Your task to perform on an android device: change your default location settings in chrome Image 0: 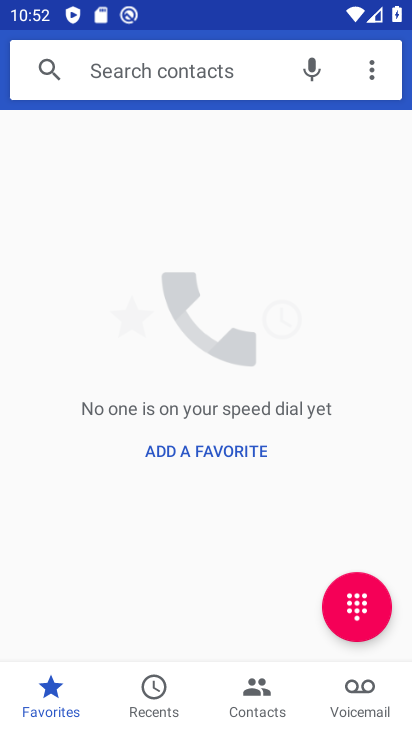
Step 0: press home button
Your task to perform on an android device: change your default location settings in chrome Image 1: 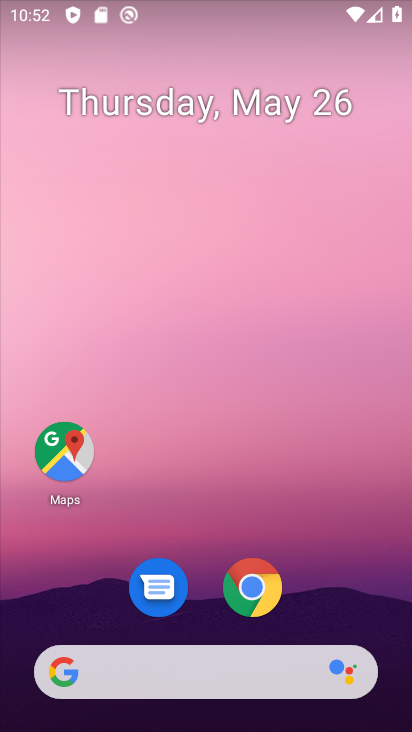
Step 1: drag from (302, 697) to (337, 199)
Your task to perform on an android device: change your default location settings in chrome Image 2: 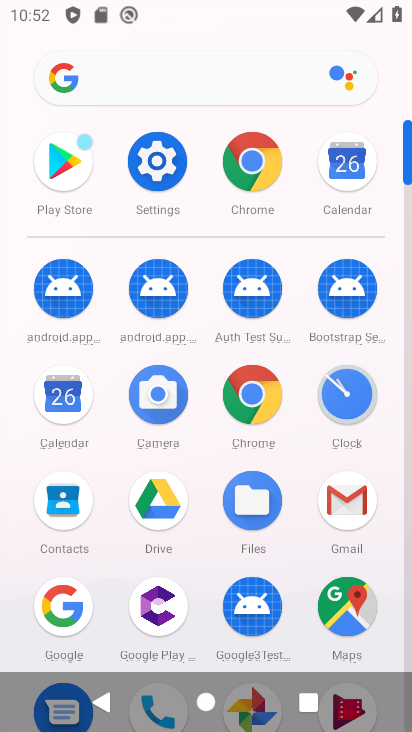
Step 2: click (251, 181)
Your task to perform on an android device: change your default location settings in chrome Image 3: 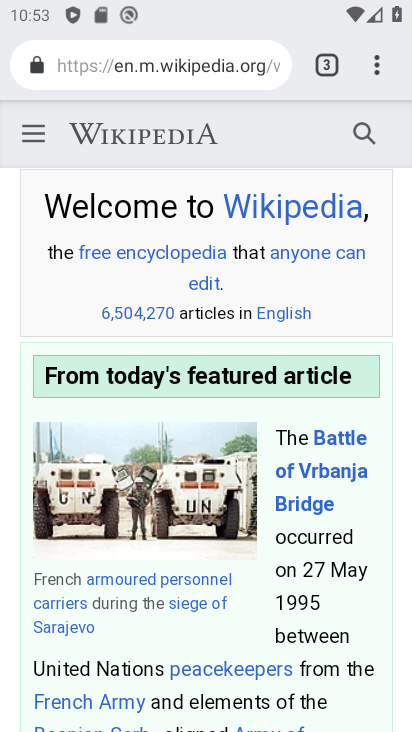
Step 3: click (365, 76)
Your task to perform on an android device: change your default location settings in chrome Image 4: 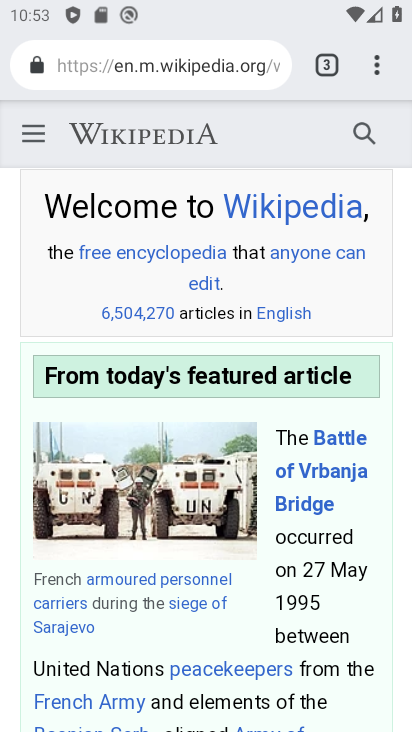
Step 4: click (379, 70)
Your task to perform on an android device: change your default location settings in chrome Image 5: 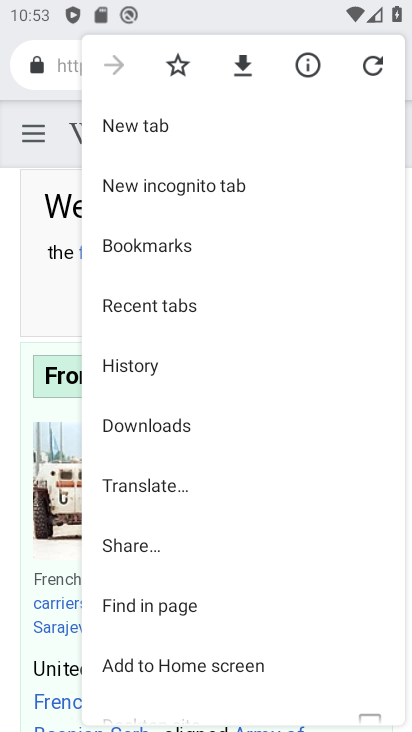
Step 5: drag from (207, 626) to (248, 407)
Your task to perform on an android device: change your default location settings in chrome Image 6: 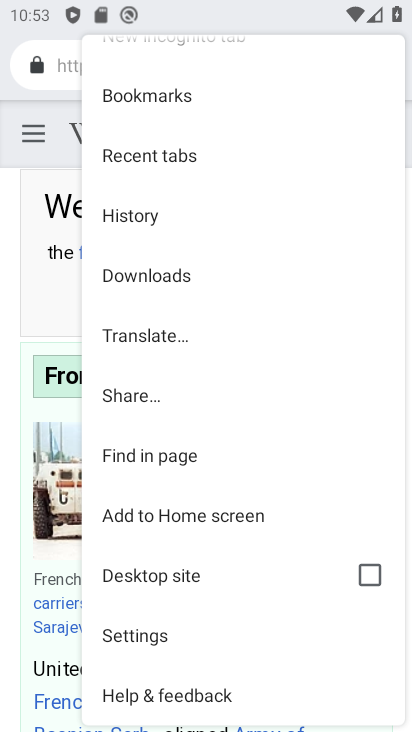
Step 6: click (143, 627)
Your task to perform on an android device: change your default location settings in chrome Image 7: 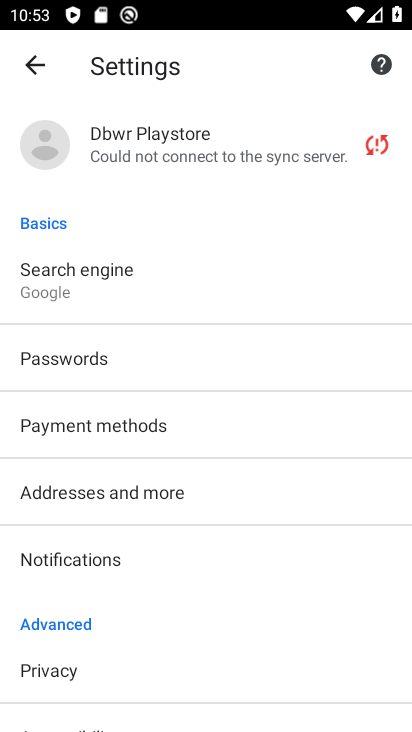
Step 7: drag from (148, 599) to (162, 381)
Your task to perform on an android device: change your default location settings in chrome Image 8: 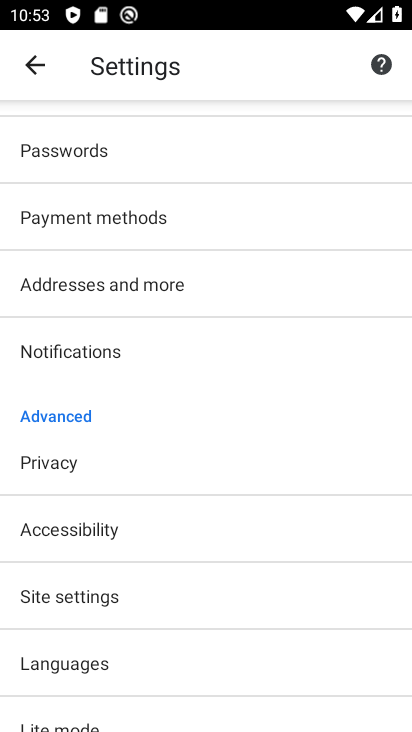
Step 8: click (105, 605)
Your task to perform on an android device: change your default location settings in chrome Image 9: 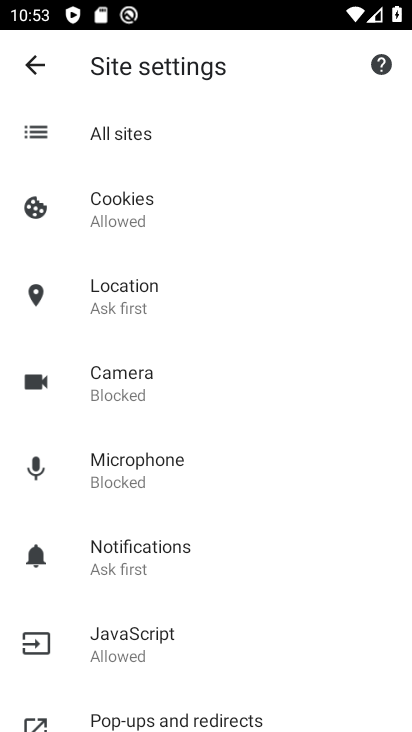
Step 9: click (135, 270)
Your task to perform on an android device: change your default location settings in chrome Image 10: 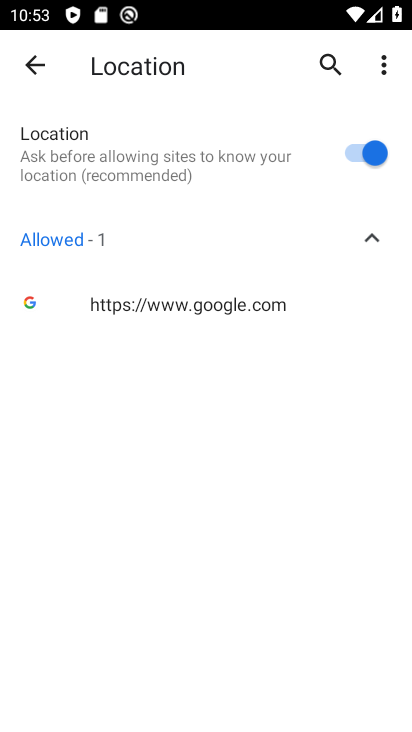
Step 10: task complete